Your task to perform on an android device: Add jbl flip 4 to the cart on costco.com, then select checkout. Image 0: 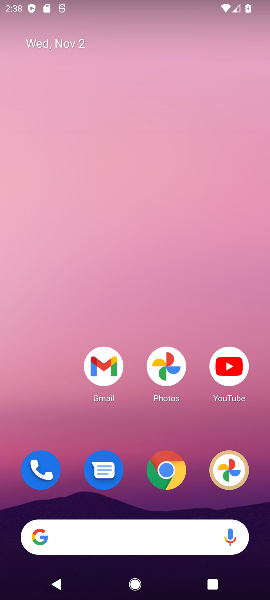
Step 0: drag from (138, 485) to (148, 83)
Your task to perform on an android device: Add jbl flip 4 to the cart on costco.com, then select checkout. Image 1: 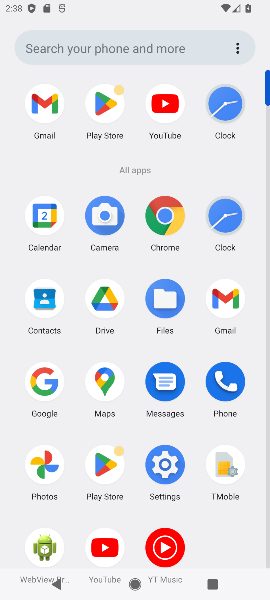
Step 1: click (31, 380)
Your task to perform on an android device: Add jbl flip 4 to the cart on costco.com, then select checkout. Image 2: 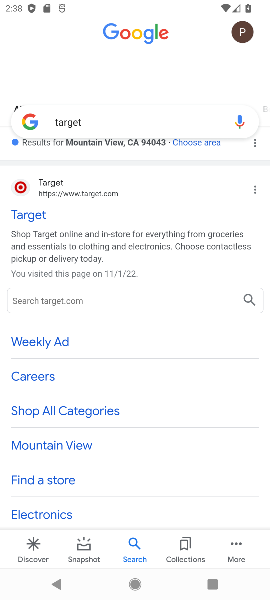
Step 2: click (138, 114)
Your task to perform on an android device: Add jbl flip 4 to the cart on costco.com, then select checkout. Image 3: 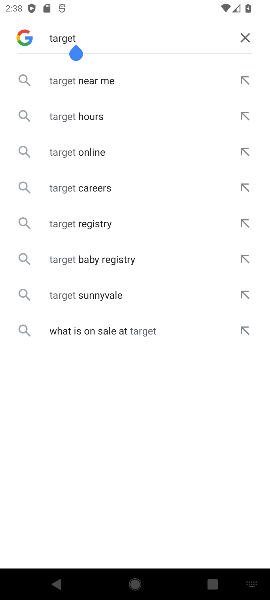
Step 3: click (242, 39)
Your task to perform on an android device: Add jbl flip 4 to the cart on costco.com, then select checkout. Image 4: 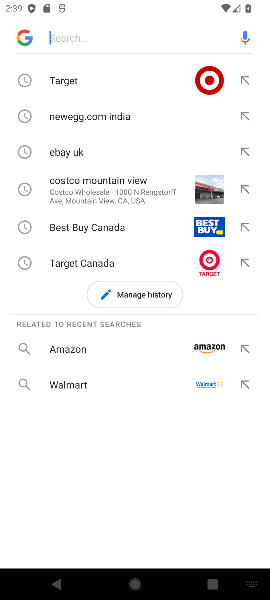
Step 4: click (68, 37)
Your task to perform on an android device: Add jbl flip 4 to the cart on costco.com, then select checkout. Image 5: 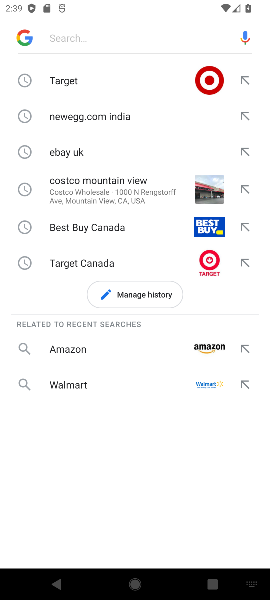
Step 5: type "costco "
Your task to perform on an android device: Add jbl flip 4 to the cart on costco.com, then select checkout. Image 6: 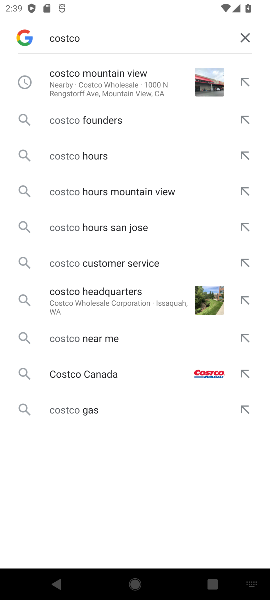
Step 6: click (97, 75)
Your task to perform on an android device: Add jbl flip 4 to the cart on costco.com, then select checkout. Image 7: 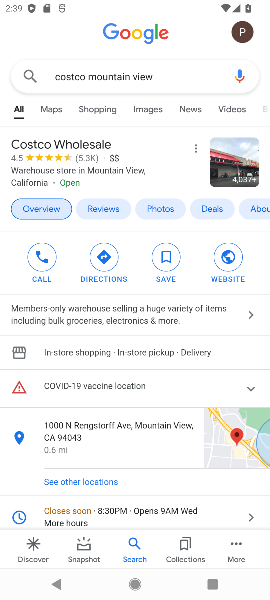
Step 7: drag from (66, 443) to (102, 70)
Your task to perform on an android device: Add jbl flip 4 to the cart on costco.com, then select checkout. Image 8: 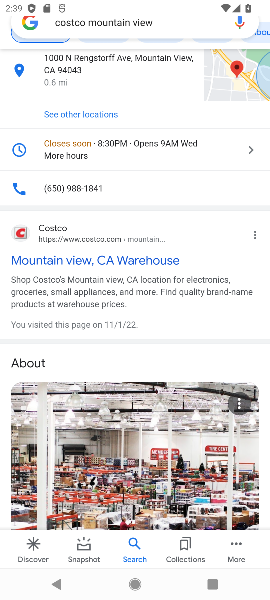
Step 8: click (21, 230)
Your task to perform on an android device: Add jbl flip 4 to the cart on costco.com, then select checkout. Image 9: 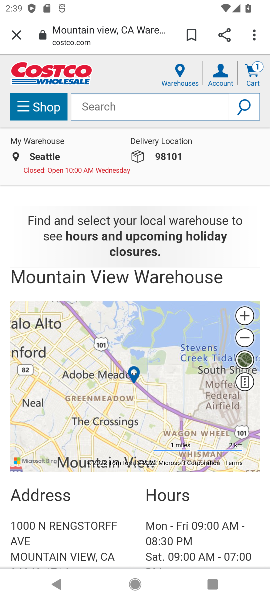
Step 9: click (147, 105)
Your task to perform on an android device: Add jbl flip 4 to the cart on costco.com, then select checkout. Image 10: 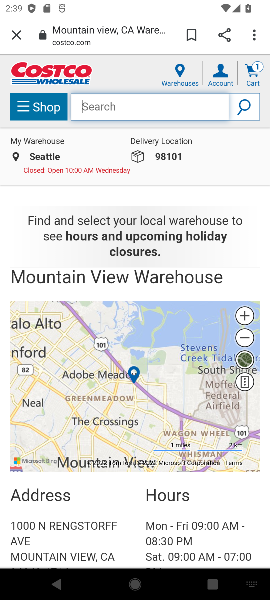
Step 10: click (115, 104)
Your task to perform on an android device: Add jbl flip 4 to the cart on costco.com, then select checkout. Image 11: 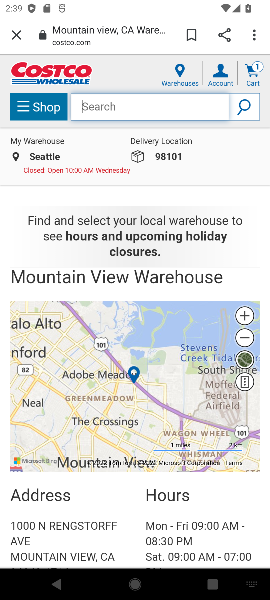
Step 11: type "jbl flip  "
Your task to perform on an android device: Add jbl flip 4 to the cart on costco.com, then select checkout. Image 12: 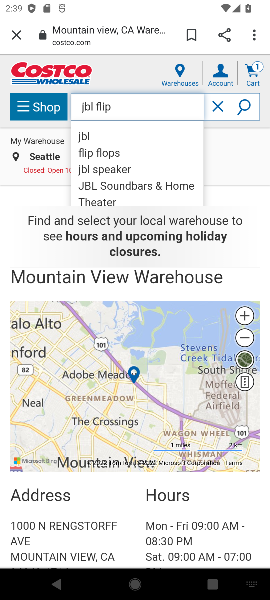
Step 12: click (87, 131)
Your task to perform on an android device: Add jbl flip 4 to the cart on costco.com, then select checkout. Image 13: 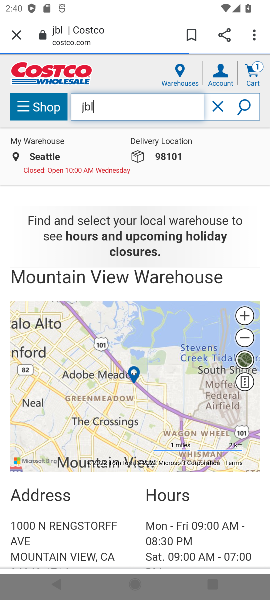
Step 13: click (254, 102)
Your task to perform on an android device: Add jbl flip 4 to the cart on costco.com, then select checkout. Image 14: 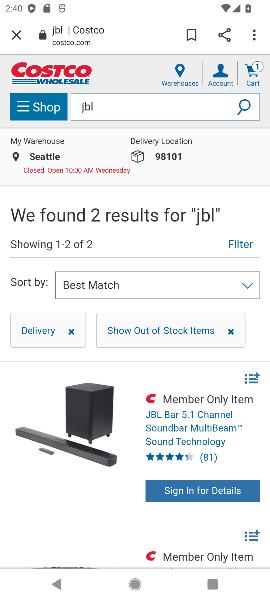
Step 14: drag from (119, 515) to (138, 297)
Your task to perform on an android device: Add jbl flip 4 to the cart on costco.com, then select checkout. Image 15: 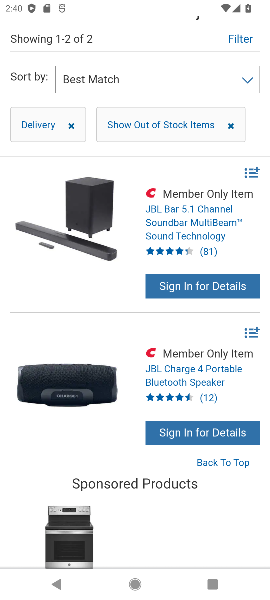
Step 15: drag from (174, 491) to (173, 279)
Your task to perform on an android device: Add jbl flip 4 to the cart on costco.com, then select checkout. Image 16: 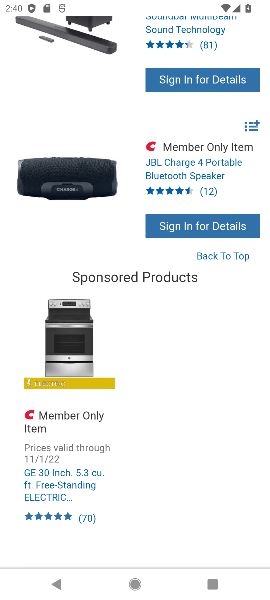
Step 16: drag from (119, 211) to (80, 536)
Your task to perform on an android device: Add jbl flip 4 to the cart on costco.com, then select checkout. Image 17: 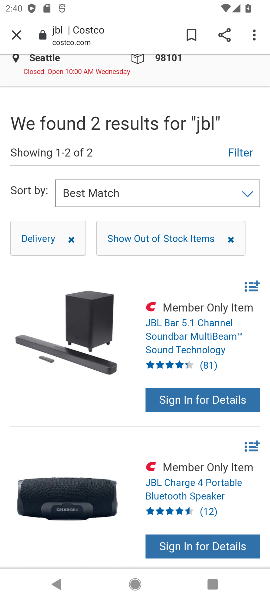
Step 17: drag from (134, 127) to (97, 490)
Your task to perform on an android device: Add jbl flip 4 to the cart on costco.com, then select checkout. Image 18: 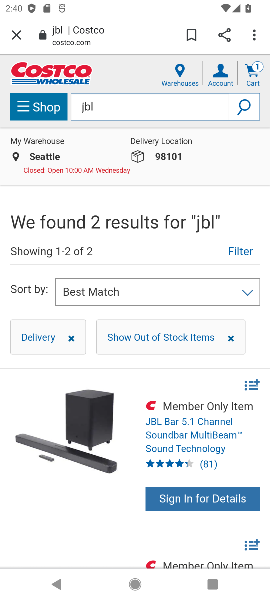
Step 18: click (171, 99)
Your task to perform on an android device: Add jbl flip 4 to the cart on costco.com, then select checkout. Image 19: 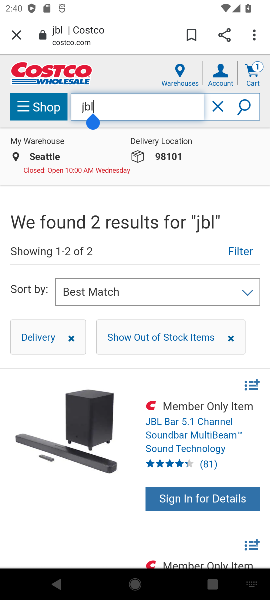
Step 19: type "4"
Your task to perform on an android device: Add jbl flip 4 to the cart on costco.com, then select checkout. Image 20: 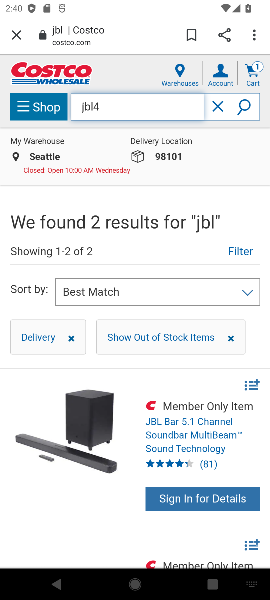
Step 20: click (244, 115)
Your task to perform on an android device: Add jbl flip 4 to the cart on costco.com, then select checkout. Image 21: 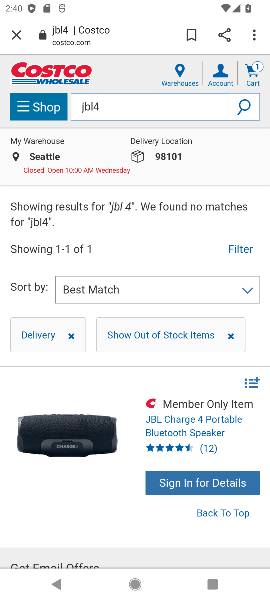
Step 21: click (193, 411)
Your task to perform on an android device: Add jbl flip 4 to the cart on costco.com, then select checkout. Image 22: 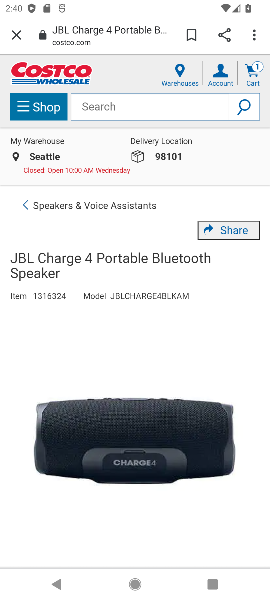
Step 22: drag from (186, 509) to (206, 178)
Your task to perform on an android device: Add jbl flip 4 to the cart on costco.com, then select checkout. Image 23: 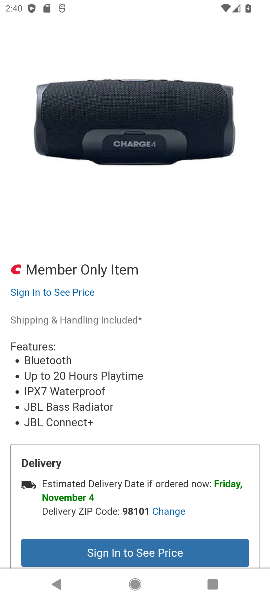
Step 23: drag from (172, 487) to (182, 222)
Your task to perform on an android device: Add jbl flip 4 to the cart on costco.com, then select checkout. Image 24: 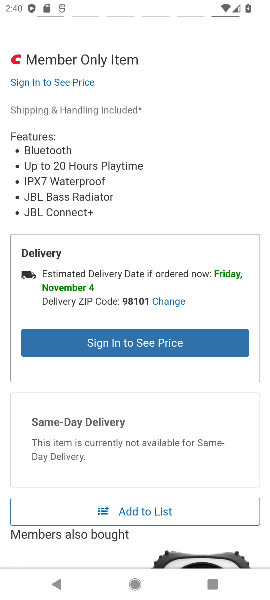
Step 24: click (120, 345)
Your task to perform on an android device: Add jbl flip 4 to the cart on costco.com, then select checkout. Image 25: 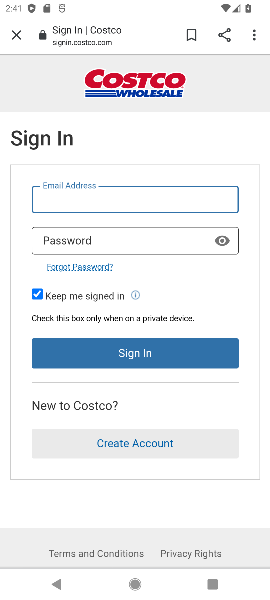
Step 25: press back button
Your task to perform on an android device: Add jbl flip 4 to the cart on costco.com, then select checkout. Image 26: 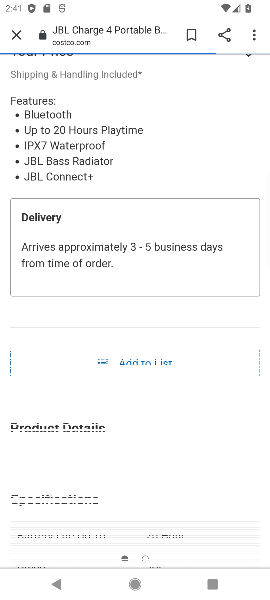
Step 26: drag from (170, 97) to (115, 448)
Your task to perform on an android device: Add jbl flip 4 to the cart on costco.com, then select checkout. Image 27: 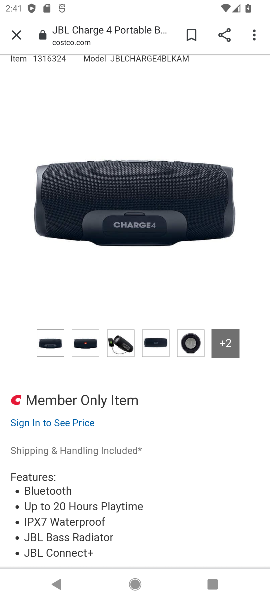
Step 27: drag from (141, 173) to (76, 510)
Your task to perform on an android device: Add jbl flip 4 to the cart on costco.com, then select checkout. Image 28: 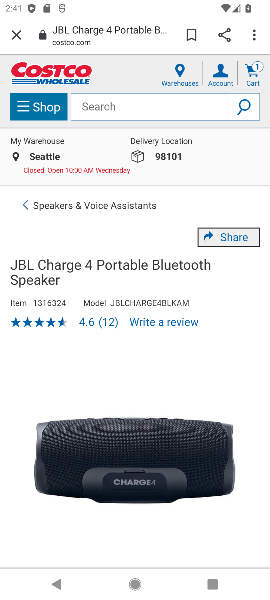
Step 28: press back button
Your task to perform on an android device: Add jbl flip 4 to the cart on costco.com, then select checkout. Image 29: 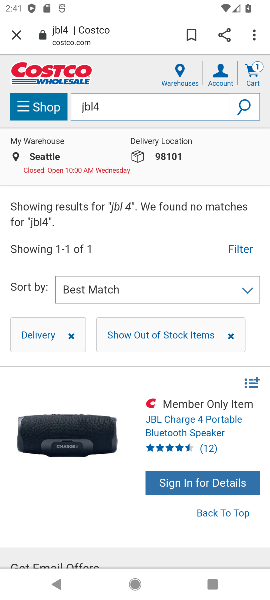
Step 29: drag from (52, 438) to (96, 131)
Your task to perform on an android device: Add jbl flip 4 to the cart on costco.com, then select checkout. Image 30: 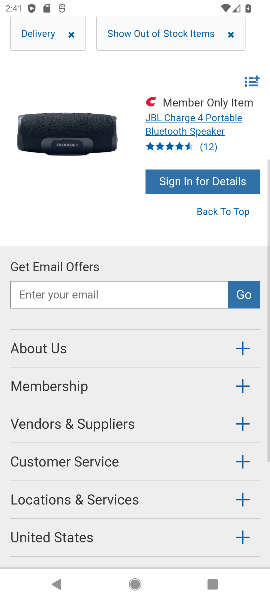
Step 30: drag from (67, 426) to (105, 198)
Your task to perform on an android device: Add jbl flip 4 to the cart on costco.com, then select checkout. Image 31: 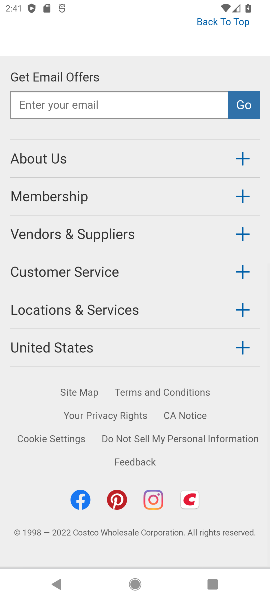
Step 31: drag from (102, 235) to (88, 548)
Your task to perform on an android device: Add jbl flip 4 to the cart on costco.com, then select checkout. Image 32: 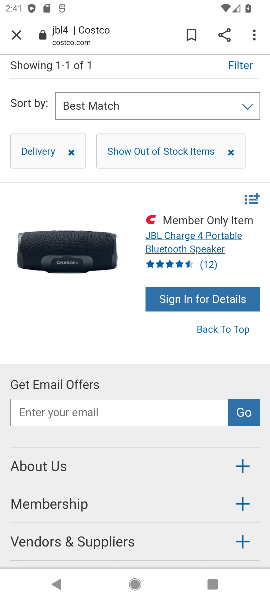
Step 32: click (86, 242)
Your task to perform on an android device: Add jbl flip 4 to the cart on costco.com, then select checkout. Image 33: 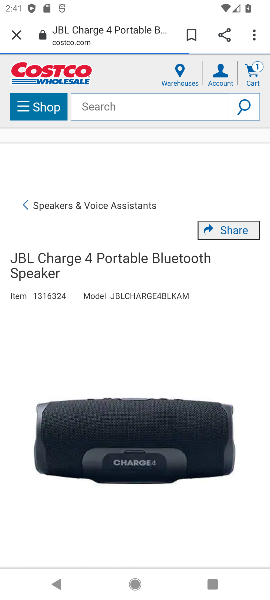
Step 33: drag from (185, 421) to (189, 194)
Your task to perform on an android device: Add jbl flip 4 to the cart on costco.com, then select checkout. Image 34: 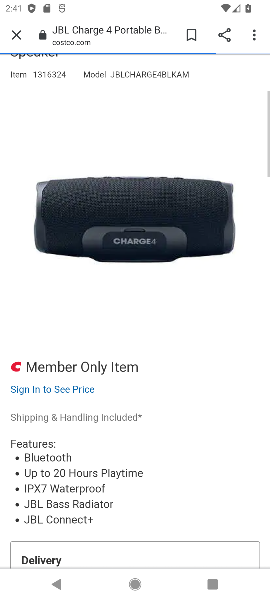
Step 34: drag from (170, 400) to (171, 167)
Your task to perform on an android device: Add jbl flip 4 to the cart on costco.com, then select checkout. Image 35: 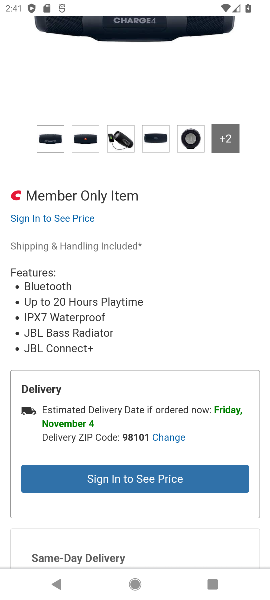
Step 35: click (81, 190)
Your task to perform on an android device: Add jbl flip 4 to the cart on costco.com, then select checkout. Image 36: 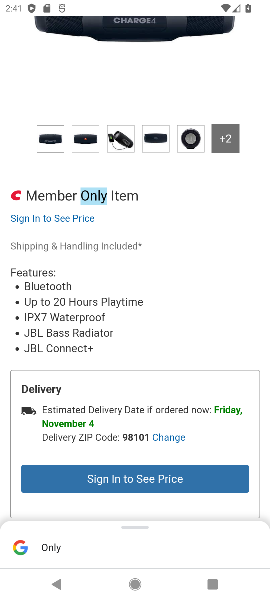
Step 36: click (181, 252)
Your task to perform on an android device: Add jbl flip 4 to the cart on costco.com, then select checkout. Image 37: 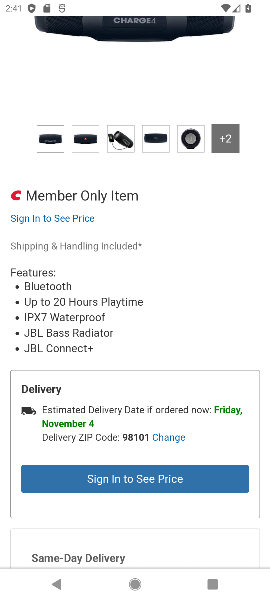
Step 37: task complete